Your task to perform on an android device: Go to eBay Image 0: 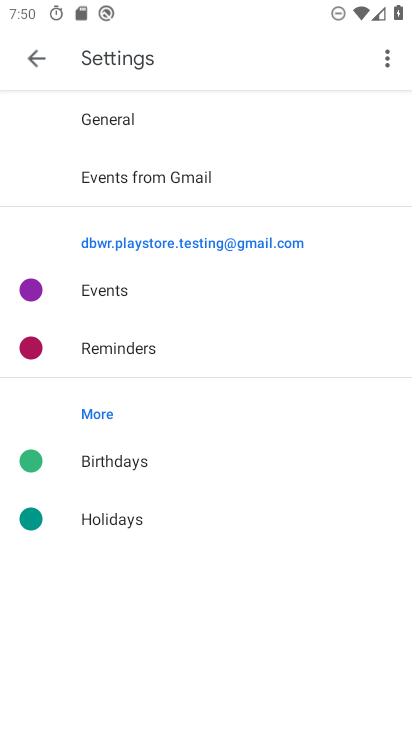
Step 0: press home button
Your task to perform on an android device: Go to eBay Image 1: 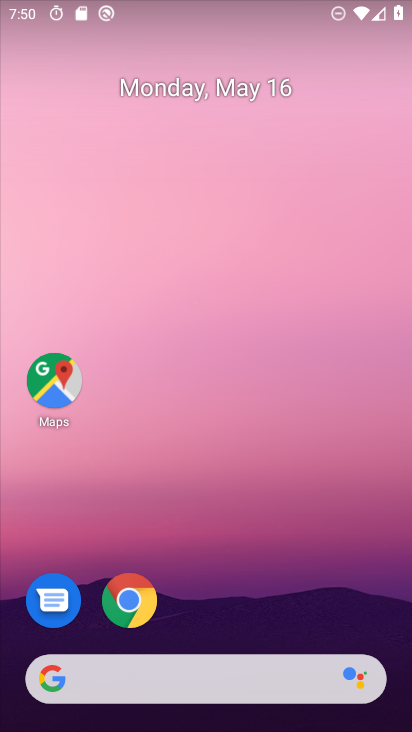
Step 1: click (134, 604)
Your task to perform on an android device: Go to eBay Image 2: 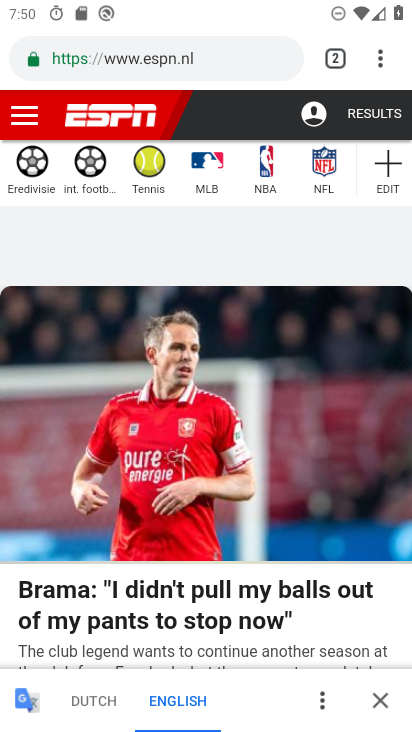
Step 2: drag from (384, 62) to (307, 115)
Your task to perform on an android device: Go to eBay Image 3: 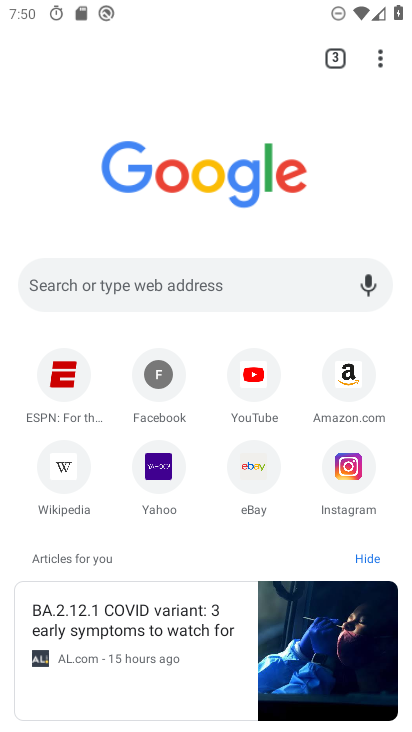
Step 3: click (259, 475)
Your task to perform on an android device: Go to eBay Image 4: 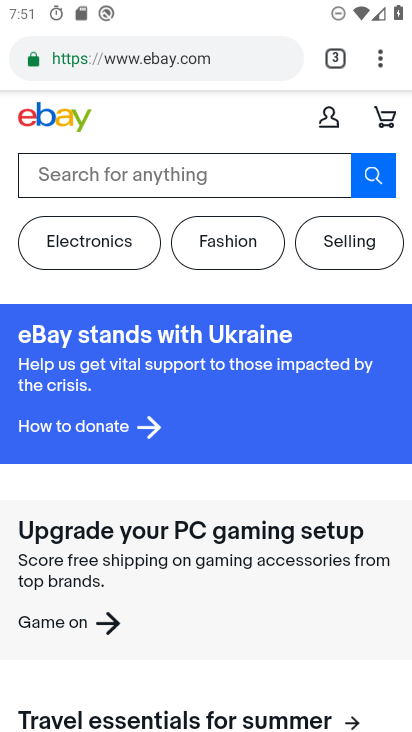
Step 4: task complete